Your task to perform on an android device: open device folders in google photos Image 0: 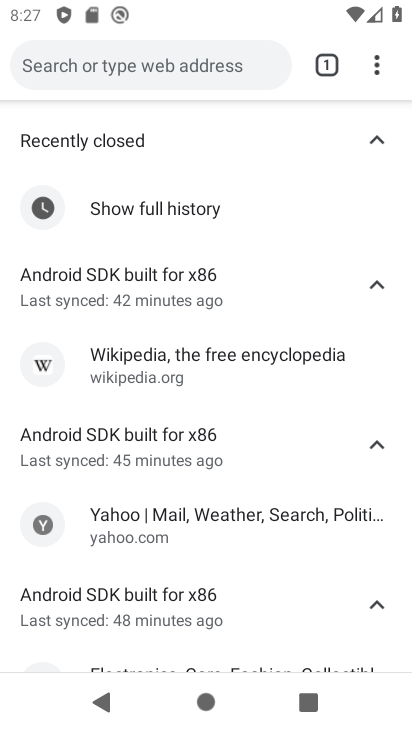
Step 0: press home button
Your task to perform on an android device: open device folders in google photos Image 1: 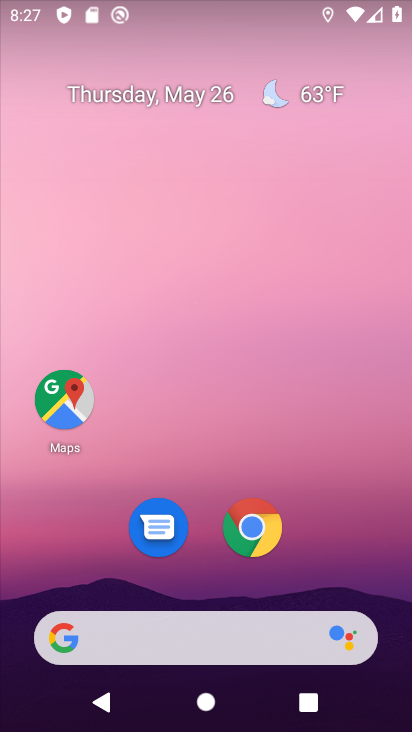
Step 1: drag from (383, 475) to (365, 51)
Your task to perform on an android device: open device folders in google photos Image 2: 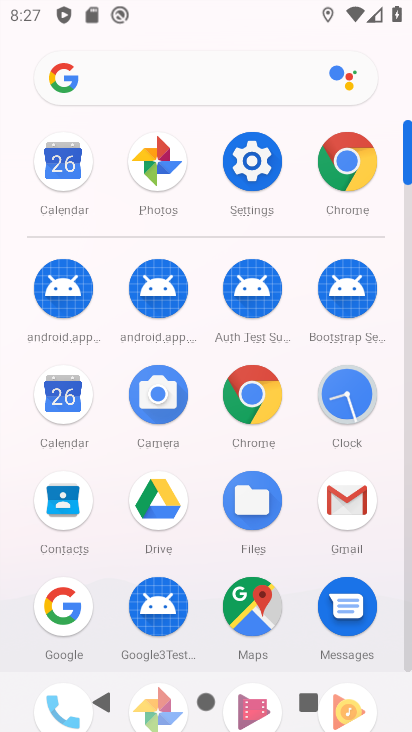
Step 2: click (163, 159)
Your task to perform on an android device: open device folders in google photos Image 3: 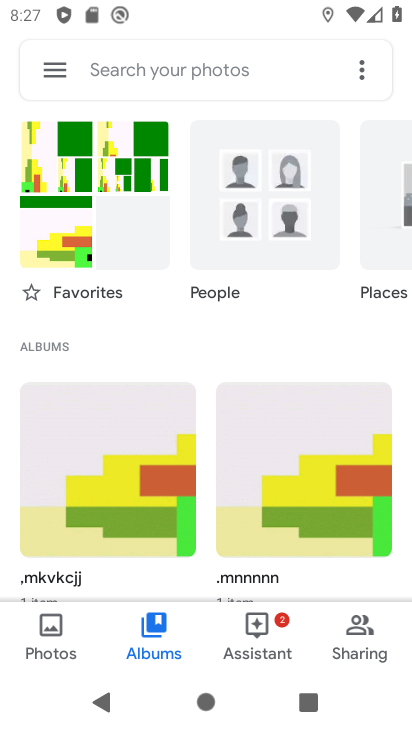
Step 3: click (53, 81)
Your task to perform on an android device: open device folders in google photos Image 4: 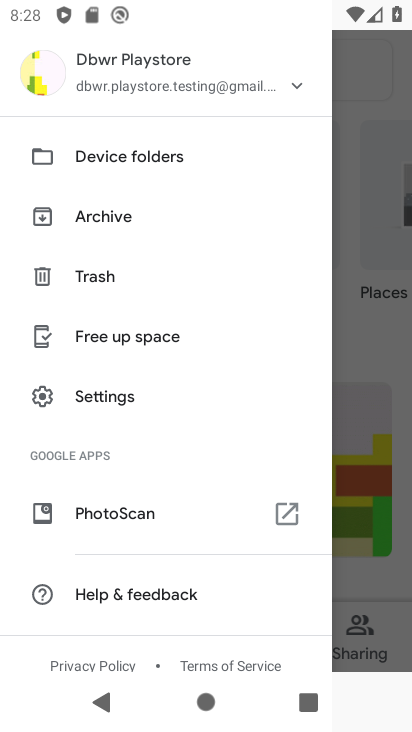
Step 4: drag from (178, 488) to (166, 452)
Your task to perform on an android device: open device folders in google photos Image 5: 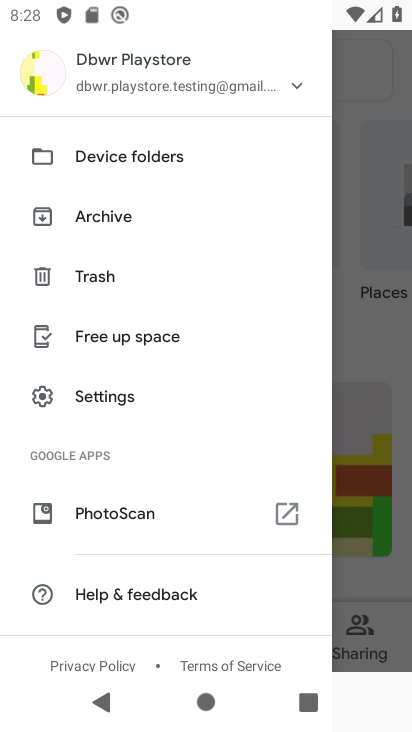
Step 5: click (117, 164)
Your task to perform on an android device: open device folders in google photos Image 6: 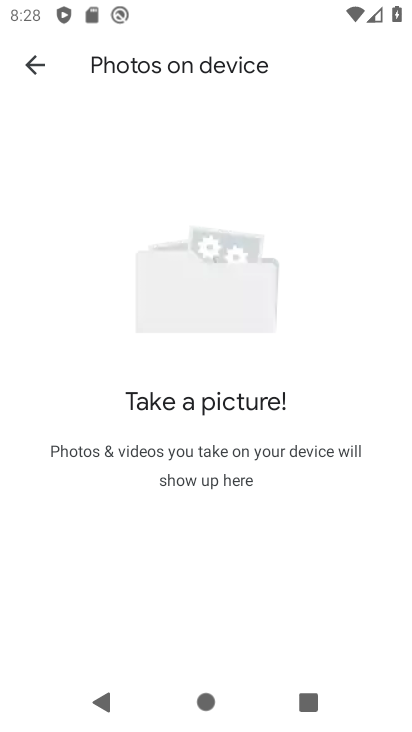
Step 6: task complete